Your task to perform on an android device: see creations saved in the google photos Image 0: 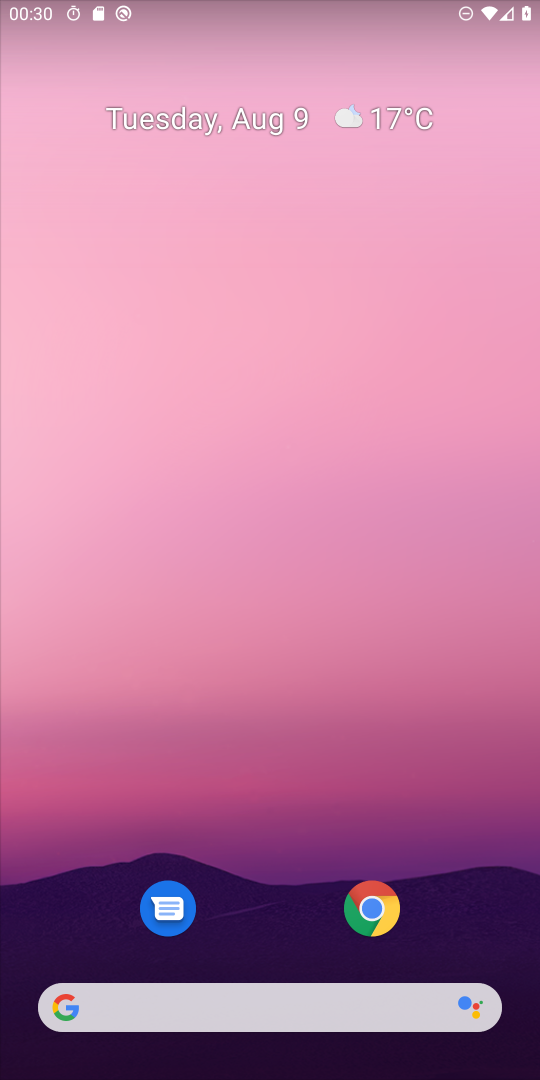
Step 0: drag from (495, 922) to (307, 97)
Your task to perform on an android device: see creations saved in the google photos Image 1: 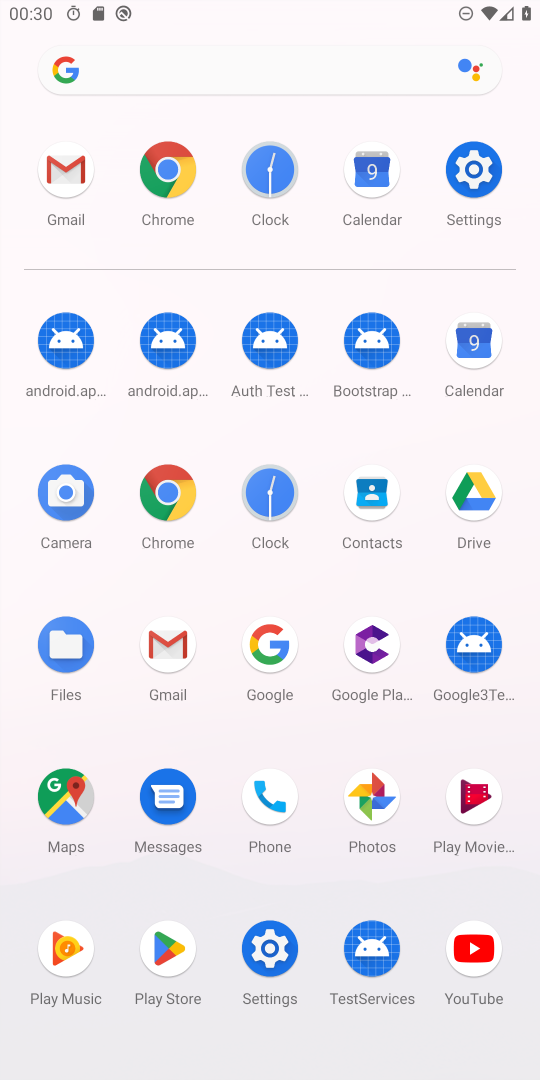
Step 1: click (379, 814)
Your task to perform on an android device: see creations saved in the google photos Image 2: 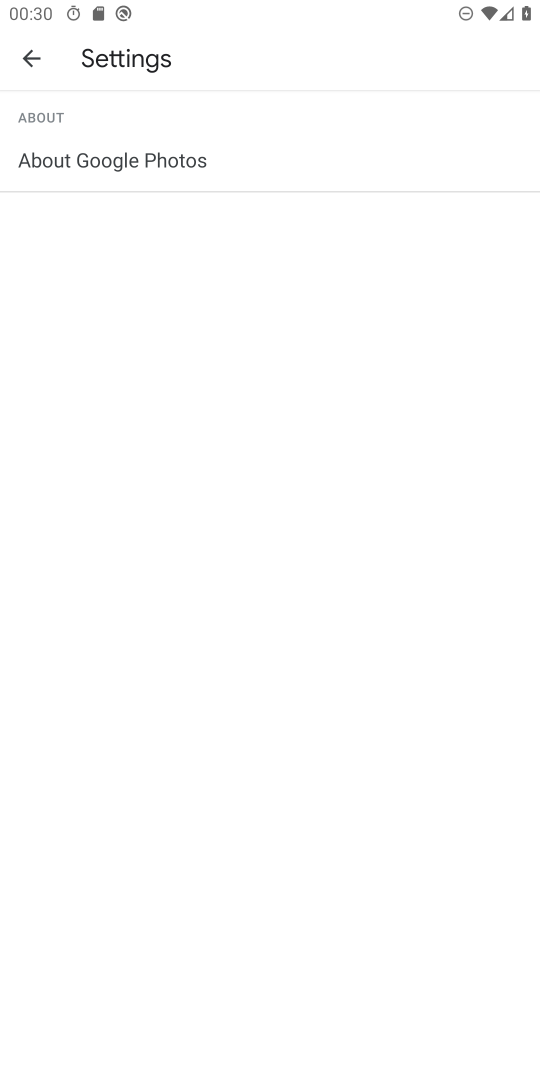
Step 2: click (27, 69)
Your task to perform on an android device: see creations saved in the google photos Image 3: 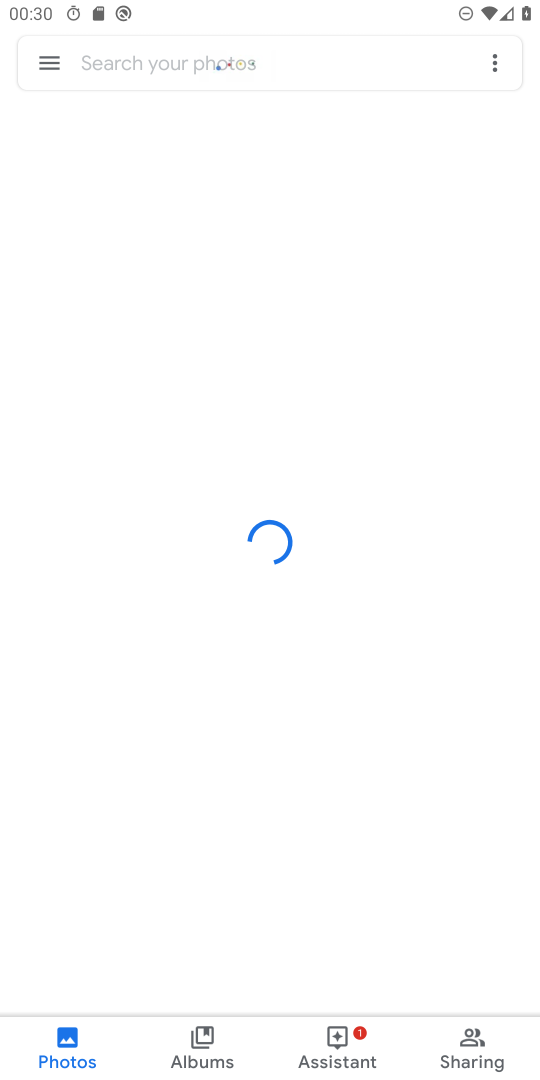
Step 3: click (108, 65)
Your task to perform on an android device: see creations saved in the google photos Image 4: 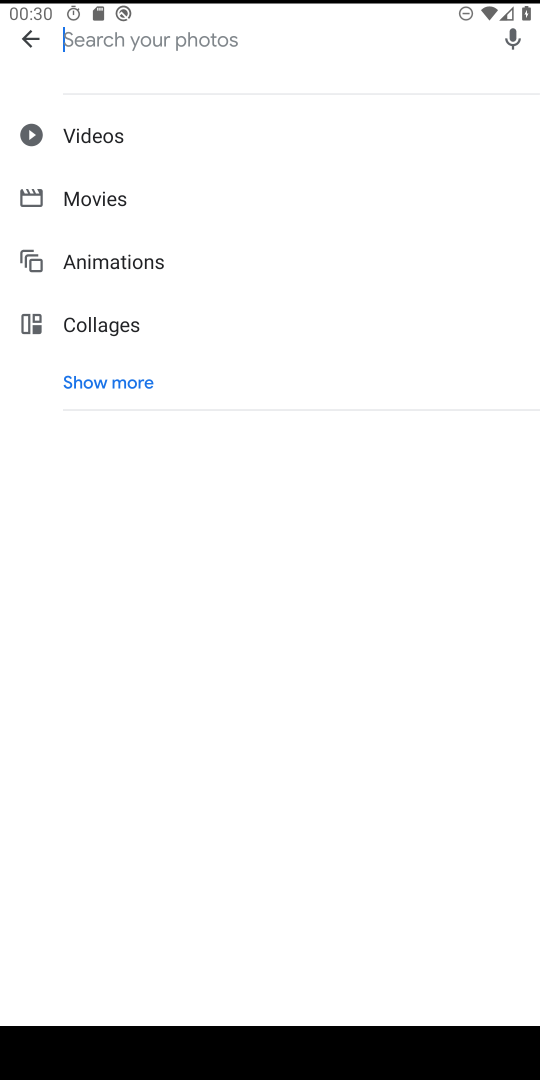
Step 4: click (128, 385)
Your task to perform on an android device: see creations saved in the google photos Image 5: 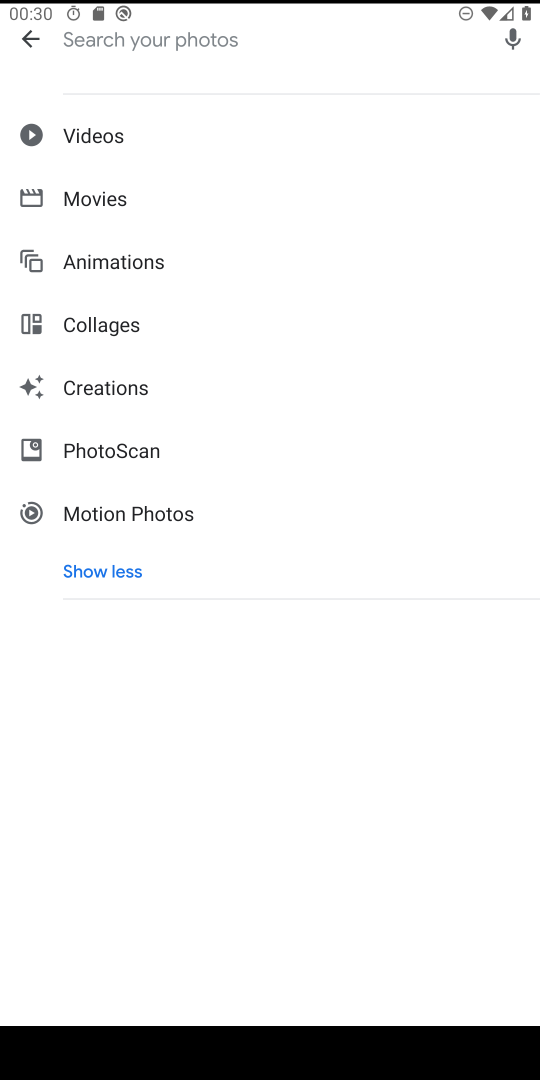
Step 5: click (124, 388)
Your task to perform on an android device: see creations saved in the google photos Image 6: 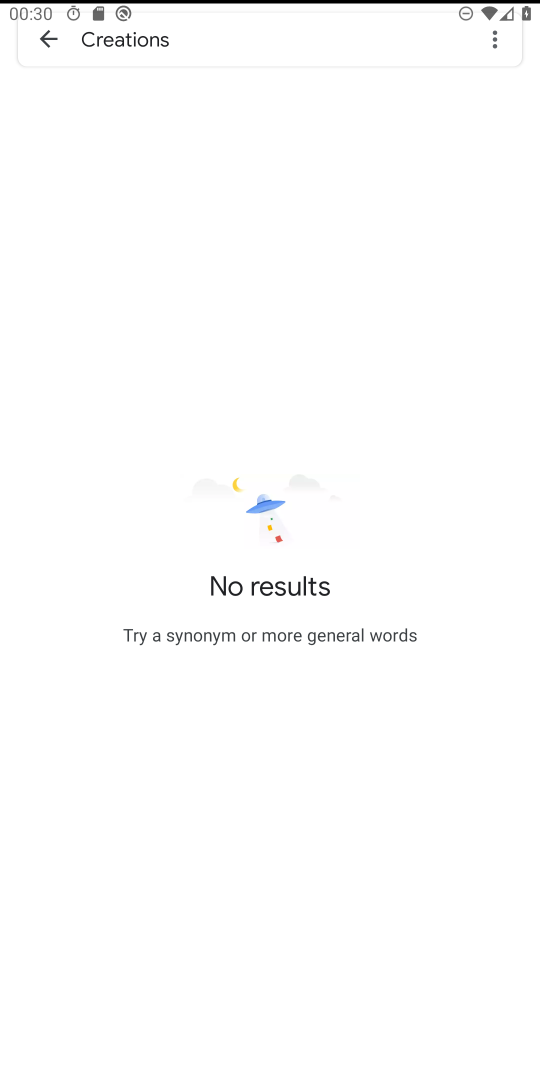
Step 6: task complete